Your task to perform on an android device: Open Chrome and go to settings Image 0: 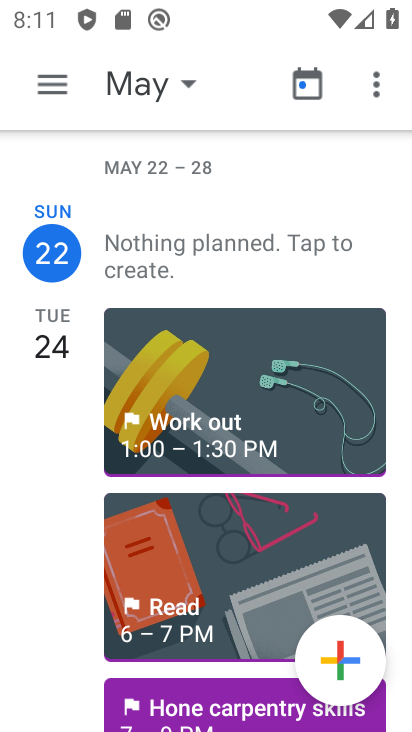
Step 0: press back button
Your task to perform on an android device: Open Chrome and go to settings Image 1: 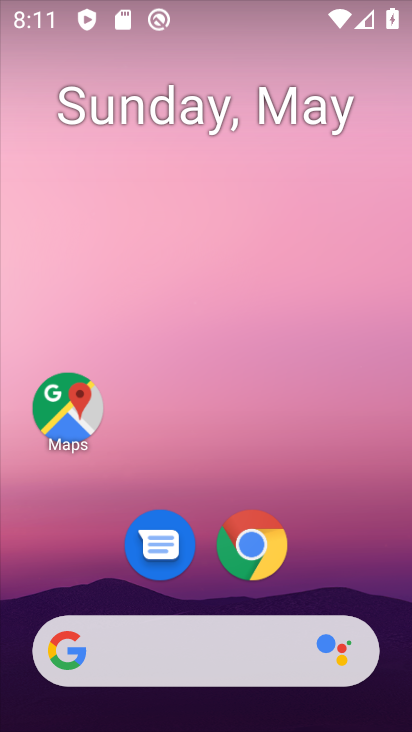
Step 1: click (252, 554)
Your task to perform on an android device: Open Chrome and go to settings Image 2: 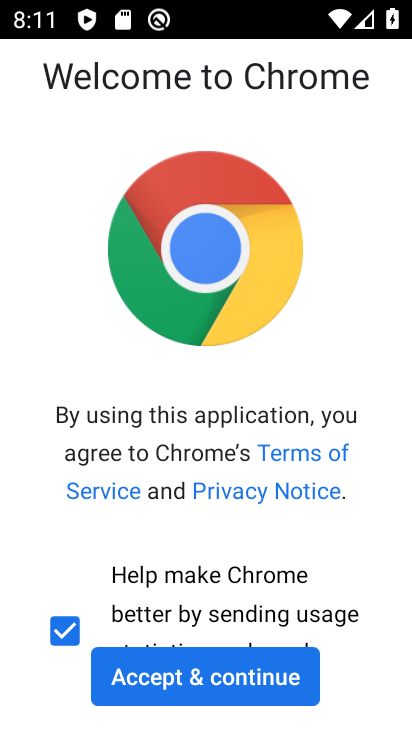
Step 2: click (233, 662)
Your task to perform on an android device: Open Chrome and go to settings Image 3: 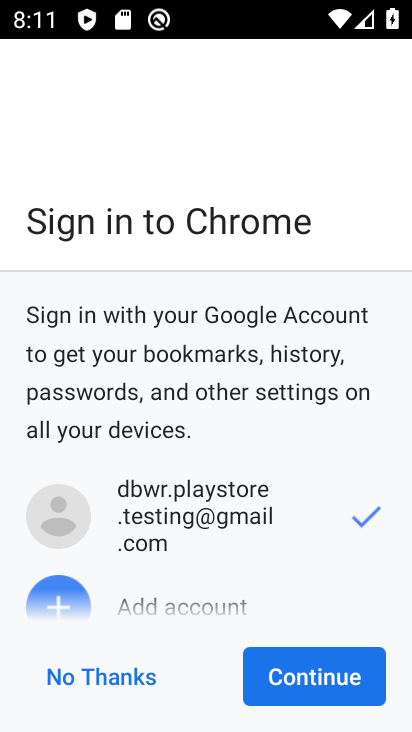
Step 3: click (287, 682)
Your task to perform on an android device: Open Chrome and go to settings Image 4: 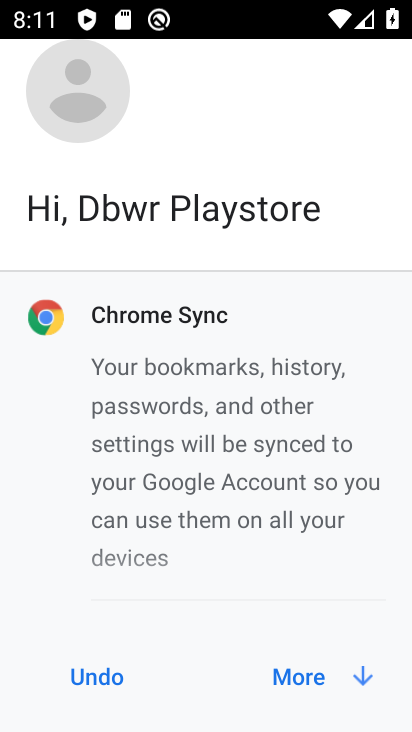
Step 4: click (287, 682)
Your task to perform on an android device: Open Chrome and go to settings Image 5: 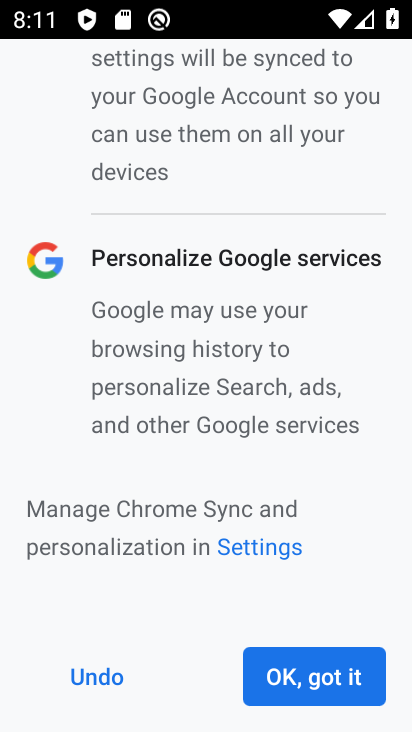
Step 5: click (287, 682)
Your task to perform on an android device: Open Chrome and go to settings Image 6: 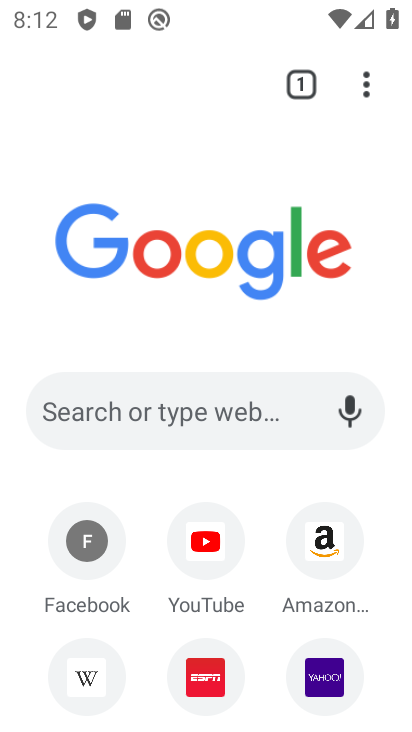
Step 6: click (359, 101)
Your task to perform on an android device: Open Chrome and go to settings Image 7: 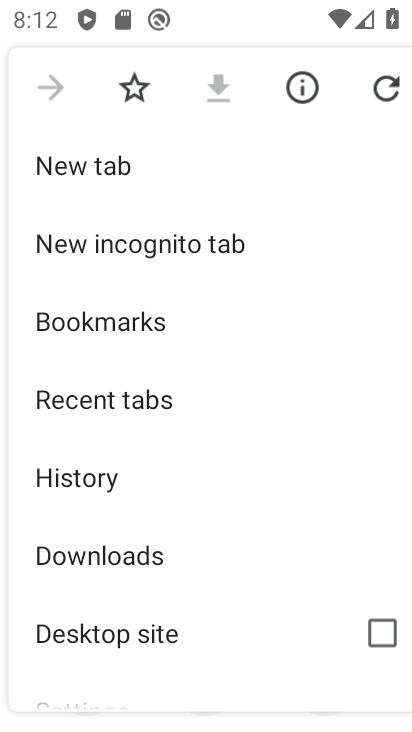
Step 7: drag from (231, 686) to (286, 107)
Your task to perform on an android device: Open Chrome and go to settings Image 8: 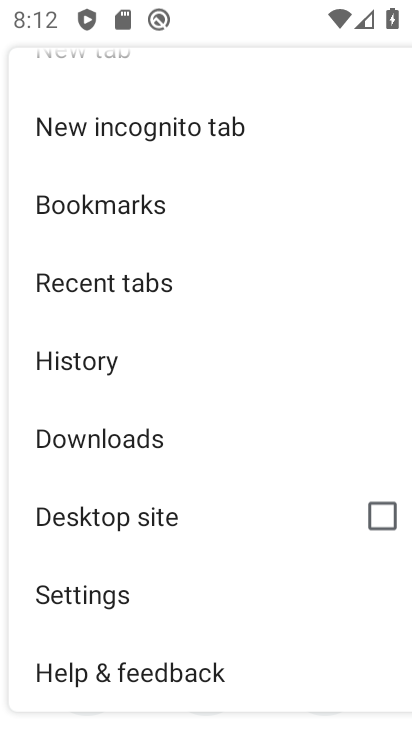
Step 8: click (237, 599)
Your task to perform on an android device: Open Chrome and go to settings Image 9: 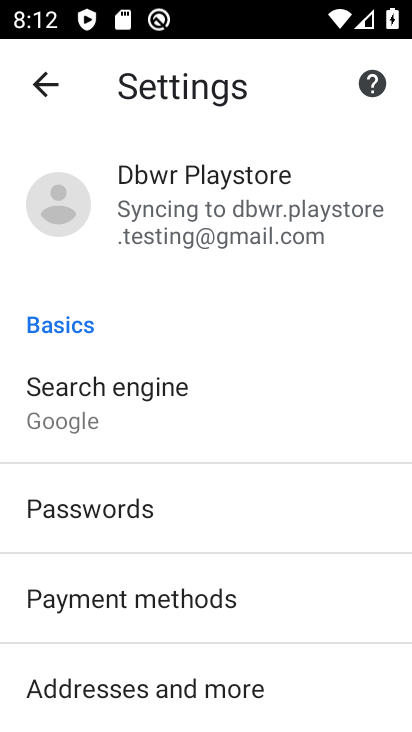
Step 9: task complete